Your task to perform on an android device: Open the phone app and click the voicemail tab. Image 0: 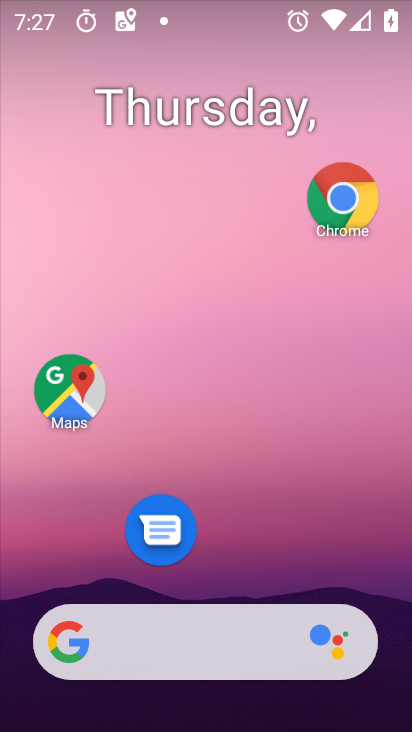
Step 0: drag from (279, 705) to (185, 165)
Your task to perform on an android device: Open the phone app and click the voicemail tab. Image 1: 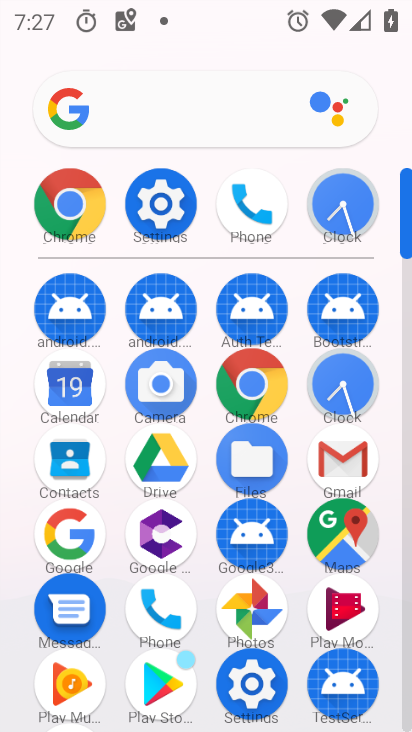
Step 1: click (220, 198)
Your task to perform on an android device: Open the phone app and click the voicemail tab. Image 2: 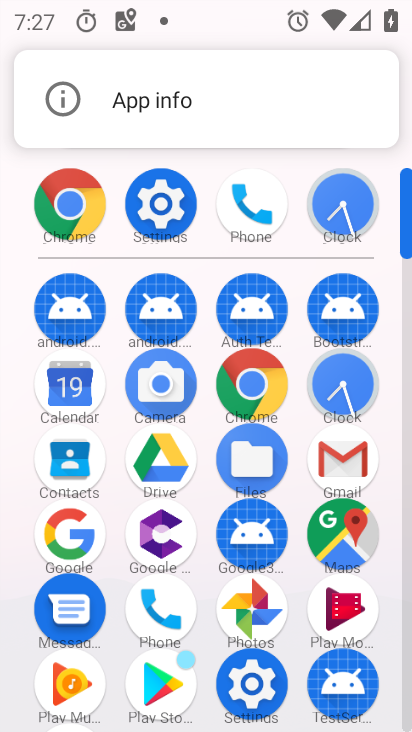
Step 2: click (241, 214)
Your task to perform on an android device: Open the phone app and click the voicemail tab. Image 3: 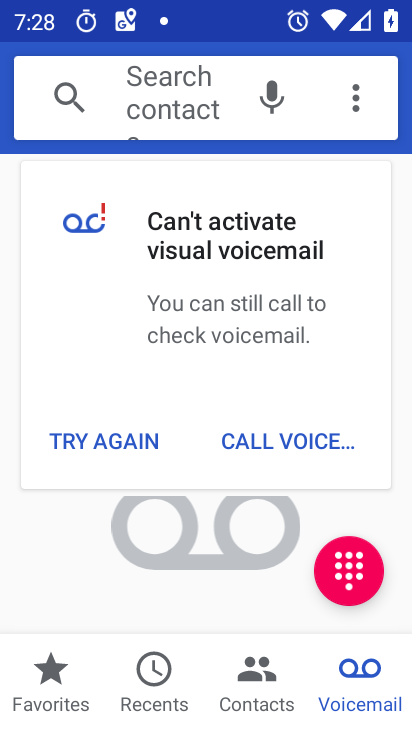
Step 3: task complete